Your task to perform on an android device: Go to Google maps Image 0: 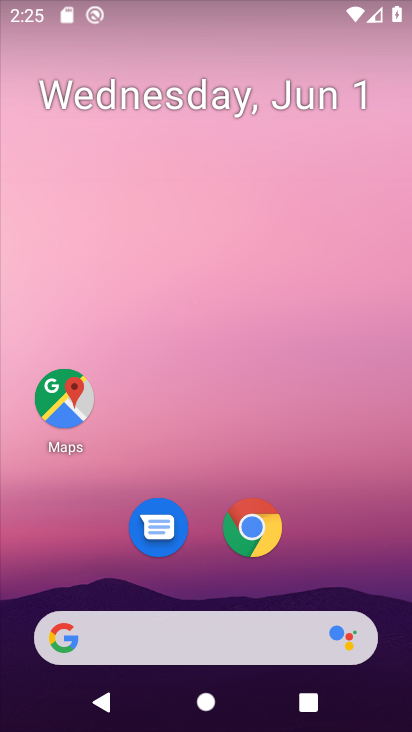
Step 0: click (404, 194)
Your task to perform on an android device: Go to Google maps Image 1: 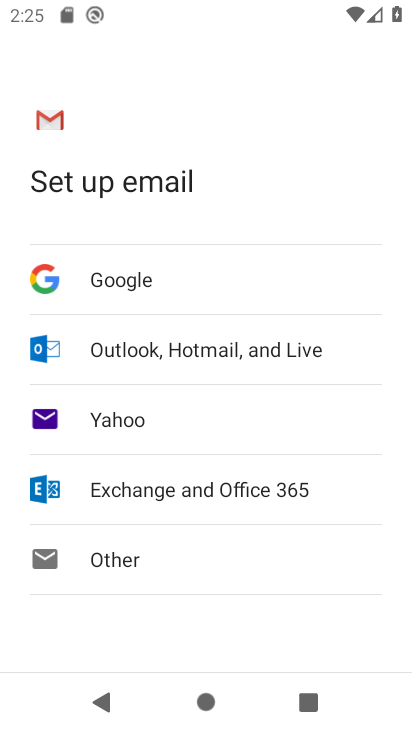
Step 1: press home button
Your task to perform on an android device: Go to Google maps Image 2: 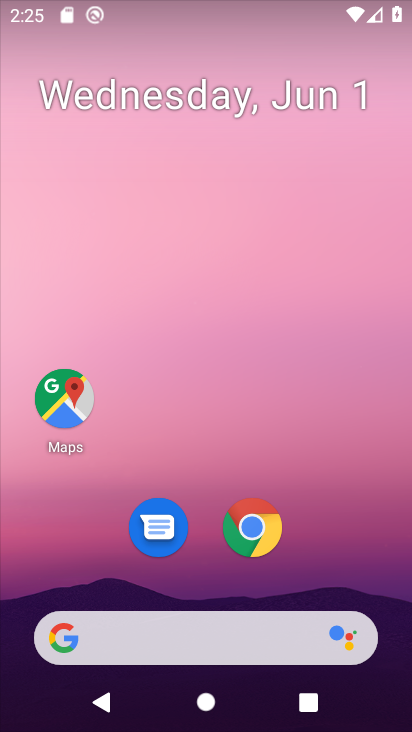
Step 2: click (52, 392)
Your task to perform on an android device: Go to Google maps Image 3: 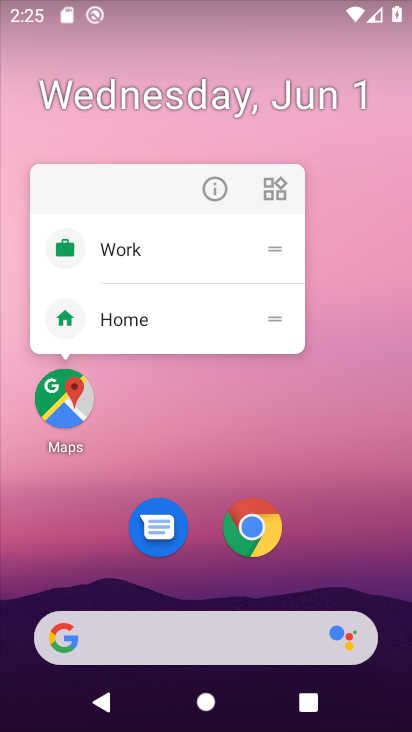
Step 3: click (52, 394)
Your task to perform on an android device: Go to Google maps Image 4: 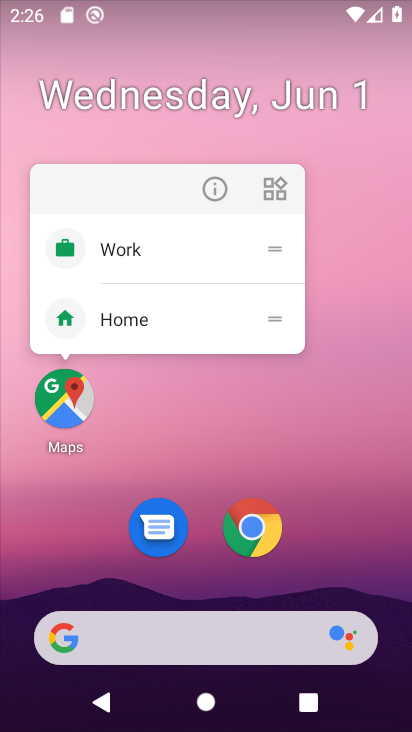
Step 4: click (58, 397)
Your task to perform on an android device: Go to Google maps Image 5: 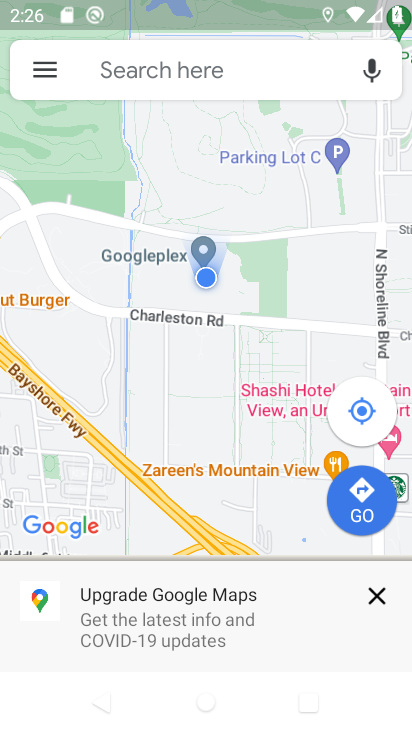
Step 5: task complete